Your task to perform on an android device: Go to Google Image 0: 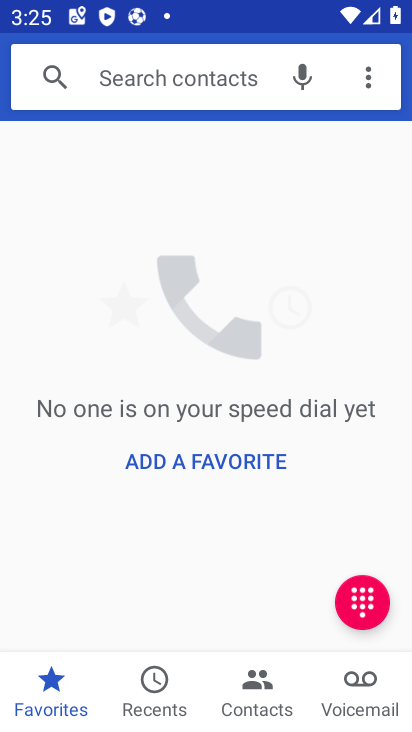
Step 0: press home button
Your task to perform on an android device: Go to Google Image 1: 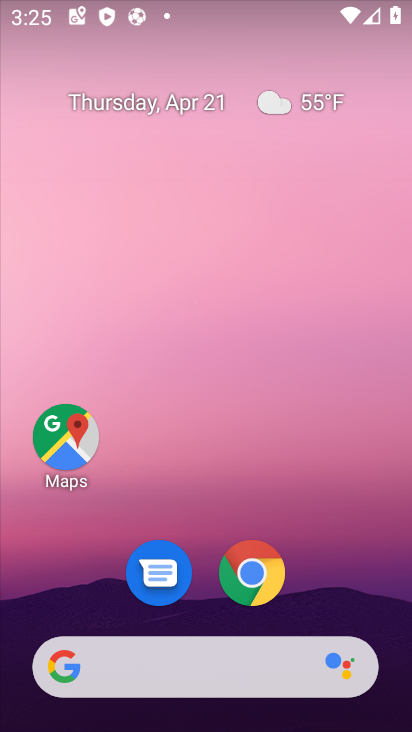
Step 1: click (251, 580)
Your task to perform on an android device: Go to Google Image 2: 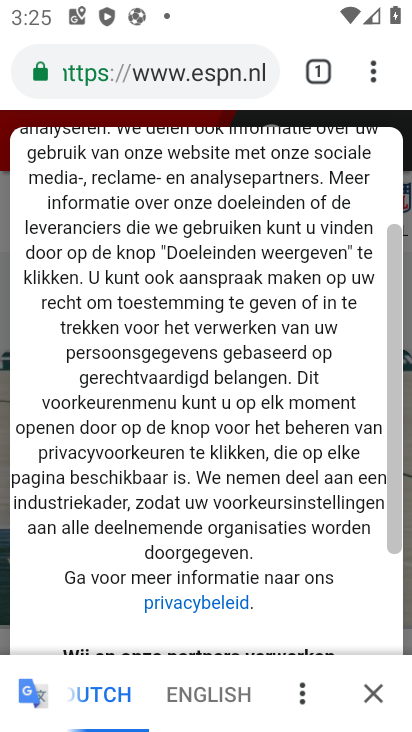
Step 2: click (366, 72)
Your task to perform on an android device: Go to Google Image 3: 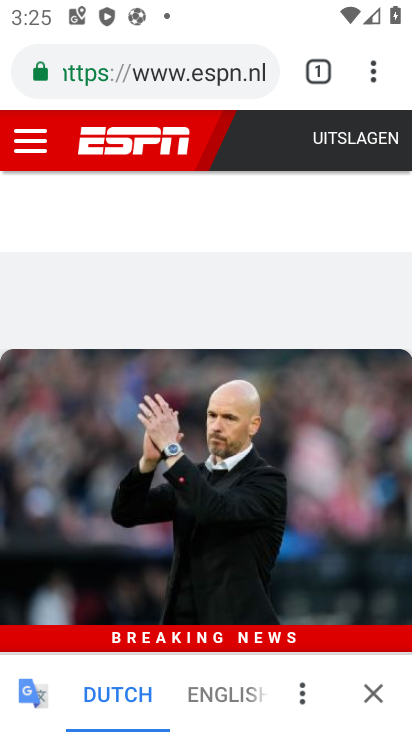
Step 3: task complete